Your task to perform on an android device: turn off priority inbox in the gmail app Image 0: 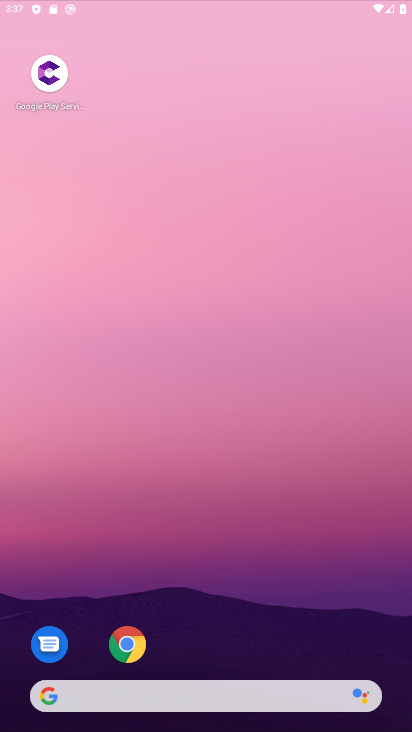
Step 0: drag from (217, 644) to (241, 271)
Your task to perform on an android device: turn off priority inbox in the gmail app Image 1: 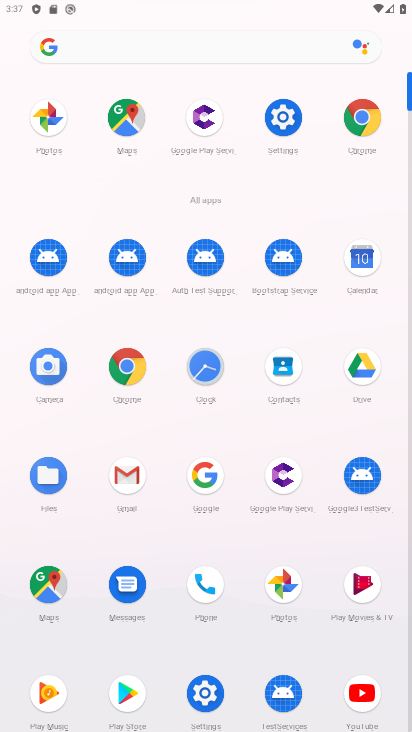
Step 1: click (129, 474)
Your task to perform on an android device: turn off priority inbox in the gmail app Image 2: 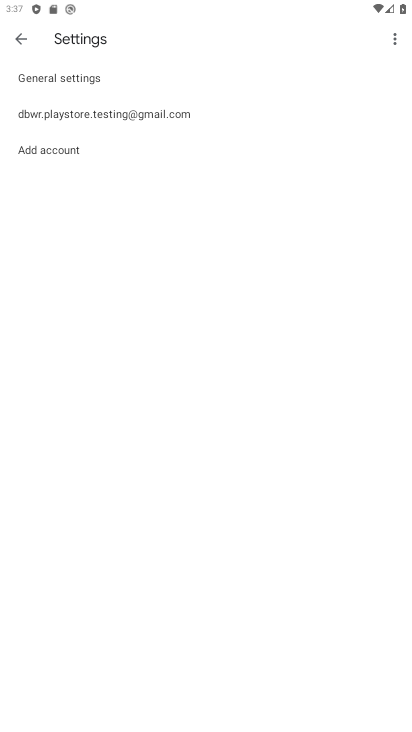
Step 2: click (129, 114)
Your task to perform on an android device: turn off priority inbox in the gmail app Image 3: 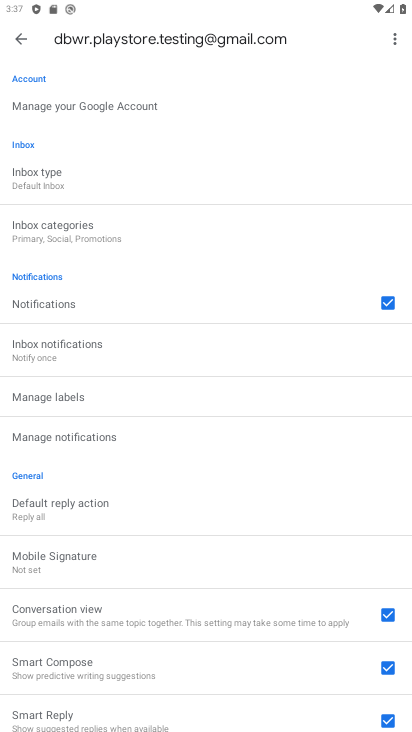
Step 3: click (74, 181)
Your task to perform on an android device: turn off priority inbox in the gmail app Image 4: 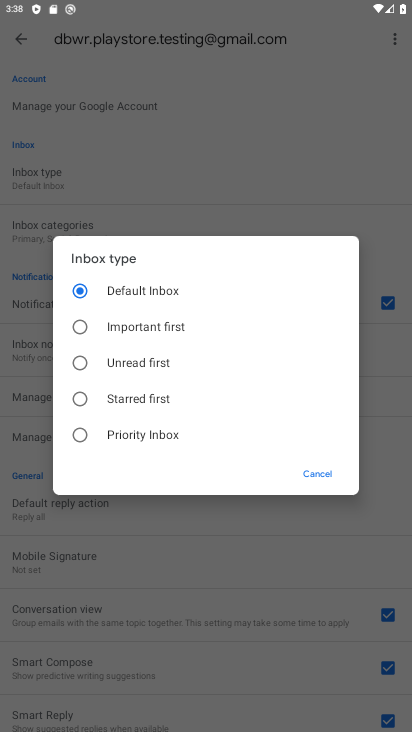
Step 4: click (82, 395)
Your task to perform on an android device: turn off priority inbox in the gmail app Image 5: 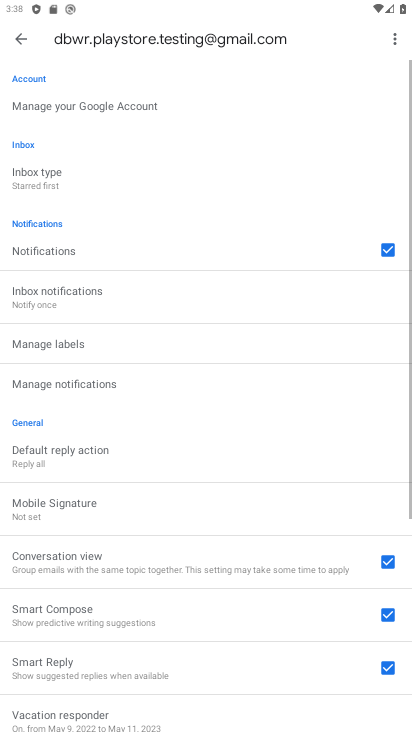
Step 5: task complete